Your task to perform on an android device: Show me recent news Image 0: 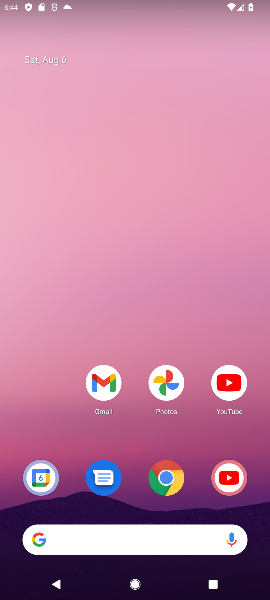
Step 0: click (32, 538)
Your task to perform on an android device: Show me recent news Image 1: 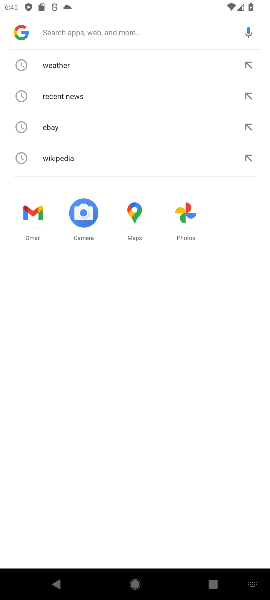
Step 1: click (68, 92)
Your task to perform on an android device: Show me recent news Image 2: 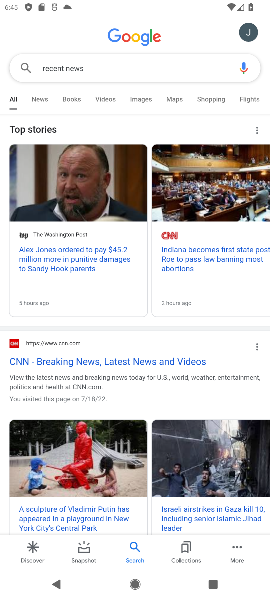
Step 2: task complete